Your task to perform on an android device: Go to Maps Image 0: 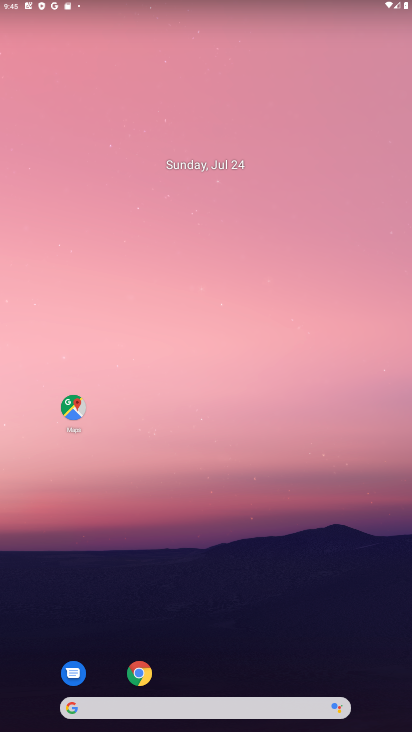
Step 0: click (66, 405)
Your task to perform on an android device: Go to Maps Image 1: 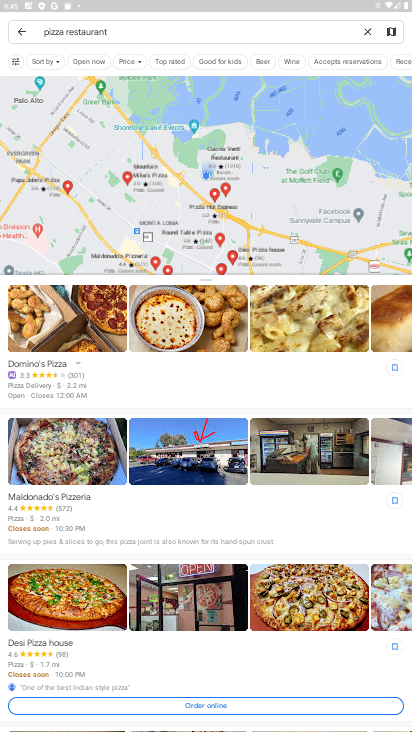
Step 1: click (23, 35)
Your task to perform on an android device: Go to Maps Image 2: 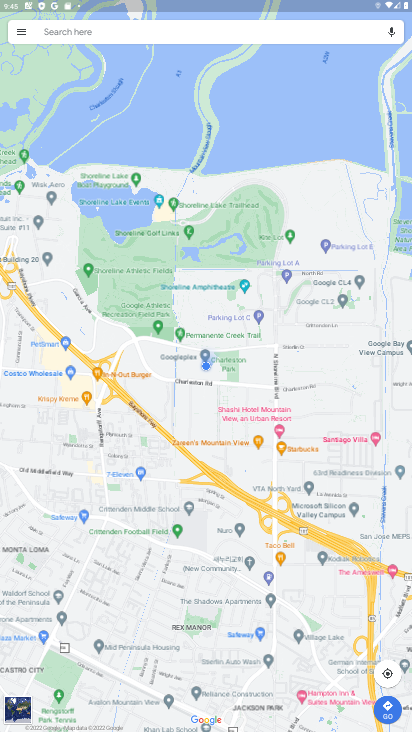
Step 2: task complete